Your task to perform on an android device: Go to battery settings Image 0: 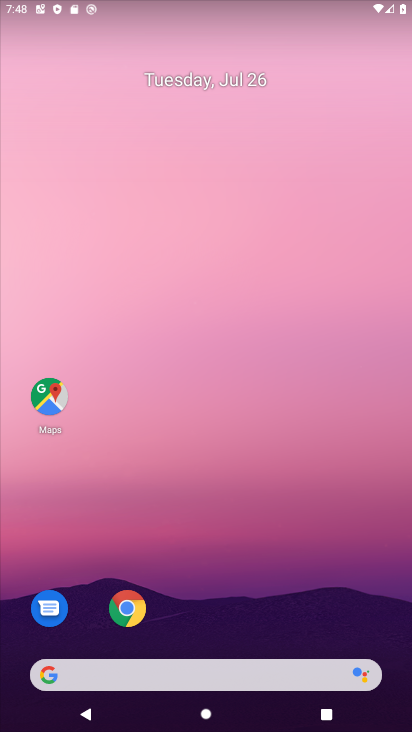
Step 0: drag from (36, 708) to (166, 274)
Your task to perform on an android device: Go to battery settings Image 1: 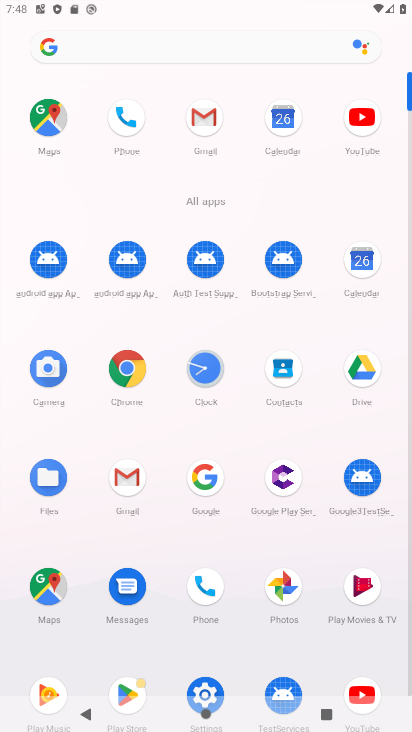
Step 1: click (203, 692)
Your task to perform on an android device: Go to battery settings Image 2: 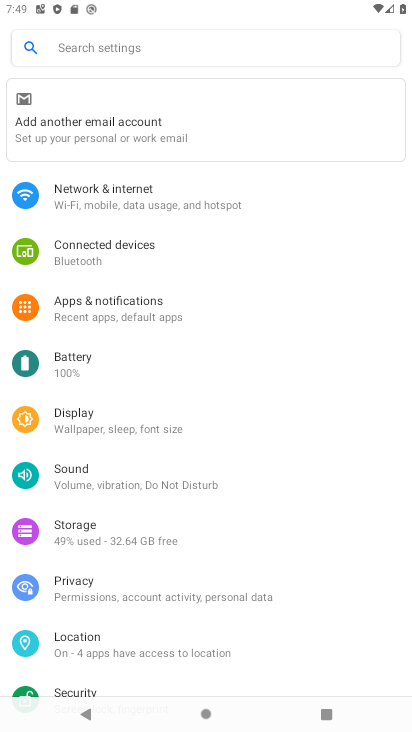
Step 2: click (86, 358)
Your task to perform on an android device: Go to battery settings Image 3: 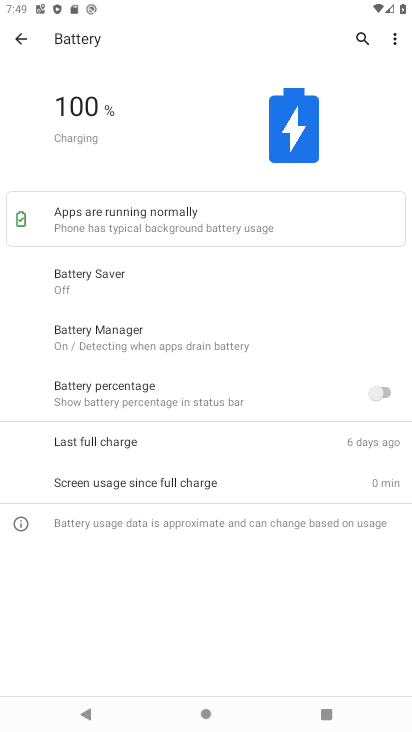
Step 3: task complete